Your task to perform on an android device: Go to Android settings Image 0: 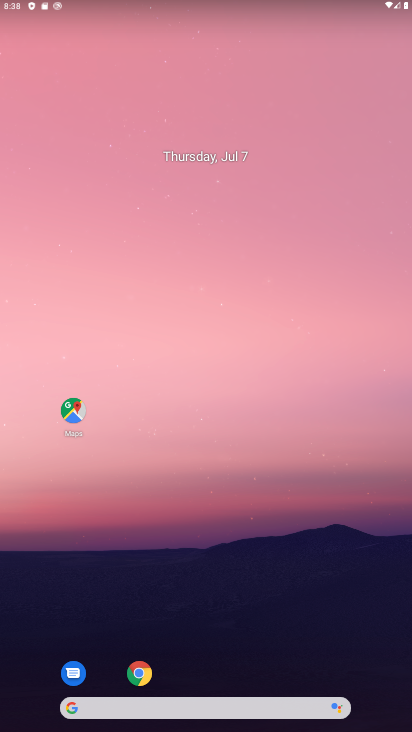
Step 0: drag from (282, 611) to (246, 305)
Your task to perform on an android device: Go to Android settings Image 1: 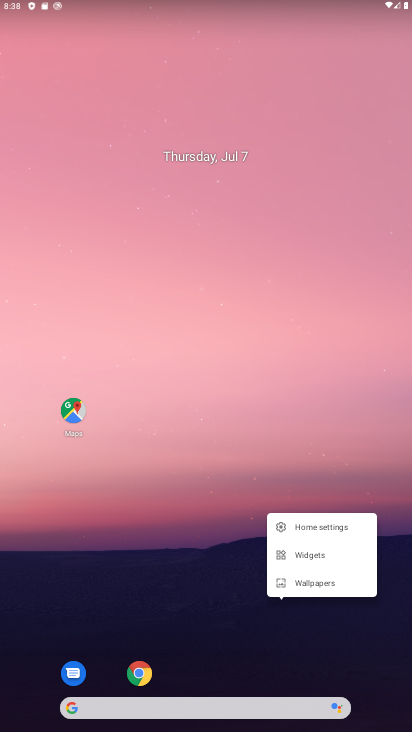
Step 1: click (244, 308)
Your task to perform on an android device: Go to Android settings Image 2: 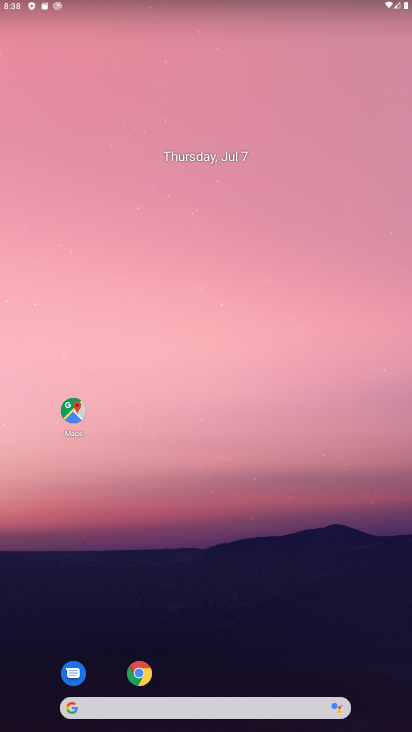
Step 2: drag from (339, 627) to (328, 187)
Your task to perform on an android device: Go to Android settings Image 3: 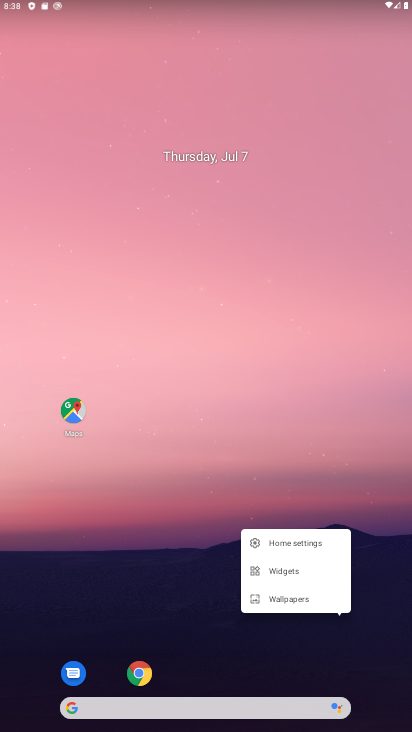
Step 3: click (230, 658)
Your task to perform on an android device: Go to Android settings Image 4: 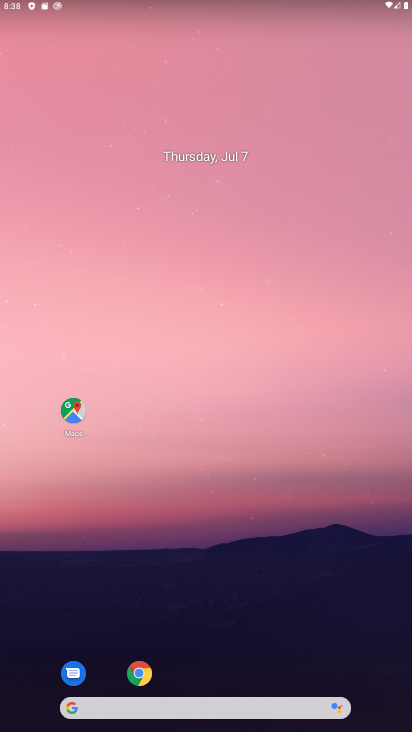
Step 4: drag from (230, 658) to (321, 6)
Your task to perform on an android device: Go to Android settings Image 5: 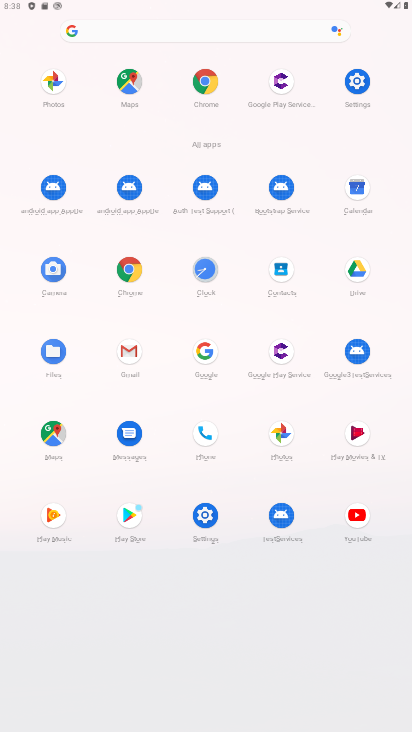
Step 5: click (208, 510)
Your task to perform on an android device: Go to Android settings Image 6: 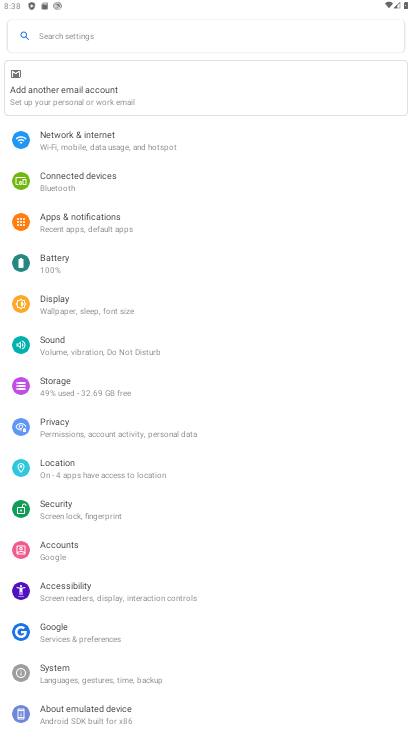
Step 6: click (208, 510)
Your task to perform on an android device: Go to Android settings Image 7: 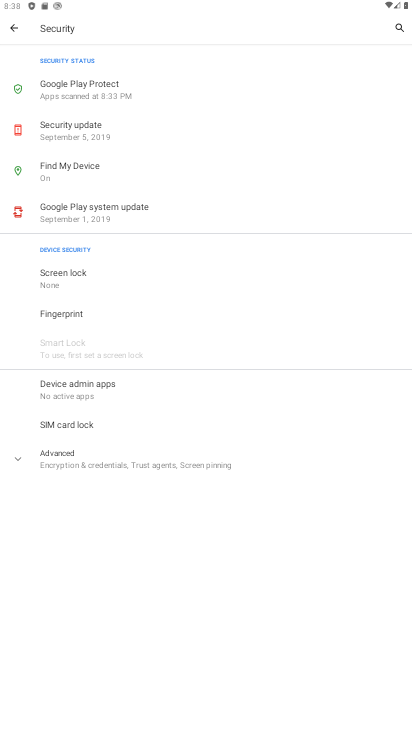
Step 7: task complete